Your task to perform on an android device: create a new album in the google photos Image 0: 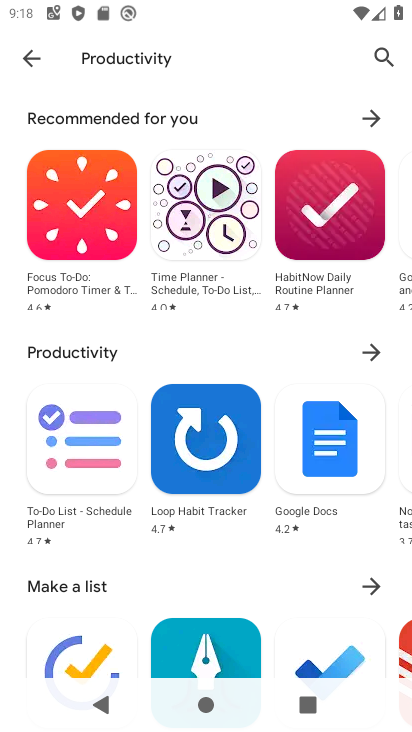
Step 0: press home button
Your task to perform on an android device: create a new album in the google photos Image 1: 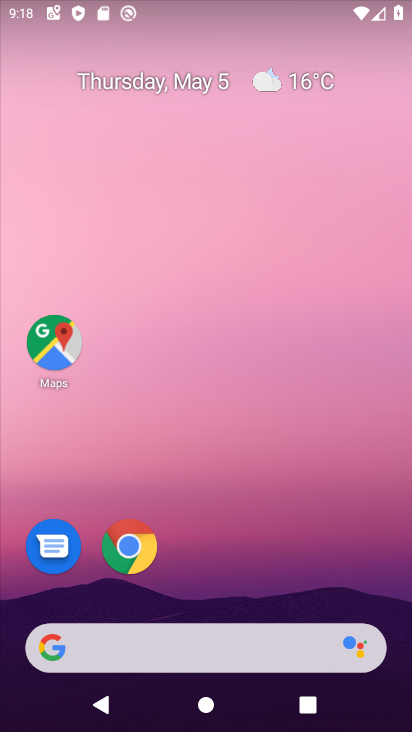
Step 1: drag from (156, 656) to (328, 36)
Your task to perform on an android device: create a new album in the google photos Image 2: 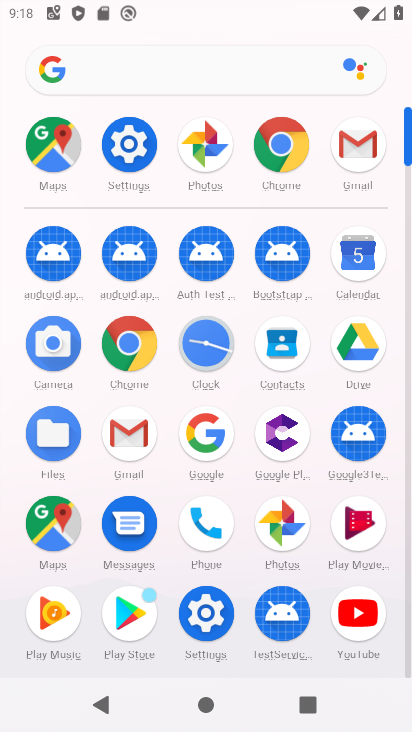
Step 2: click (277, 531)
Your task to perform on an android device: create a new album in the google photos Image 3: 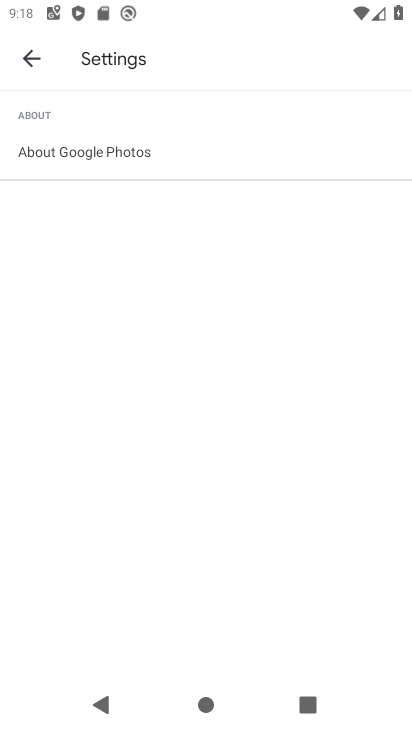
Step 3: click (35, 60)
Your task to perform on an android device: create a new album in the google photos Image 4: 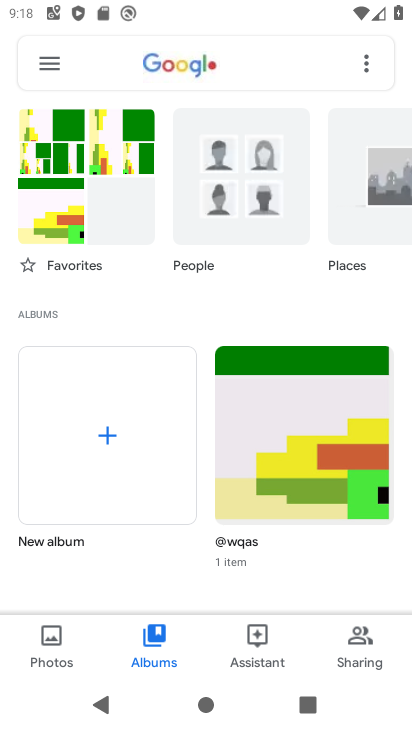
Step 4: click (105, 436)
Your task to perform on an android device: create a new album in the google photos Image 5: 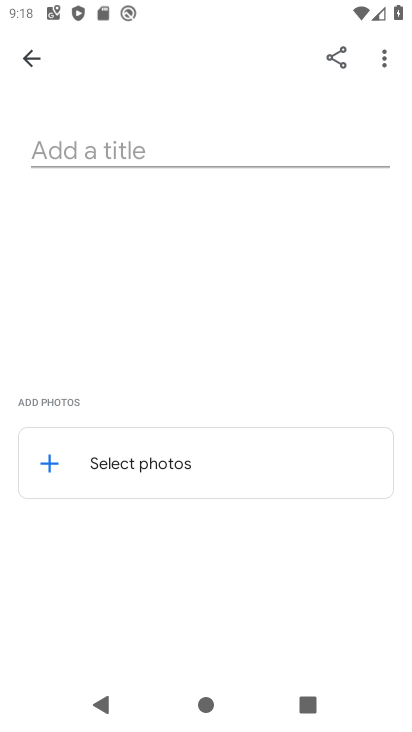
Step 5: click (168, 464)
Your task to perform on an android device: create a new album in the google photos Image 6: 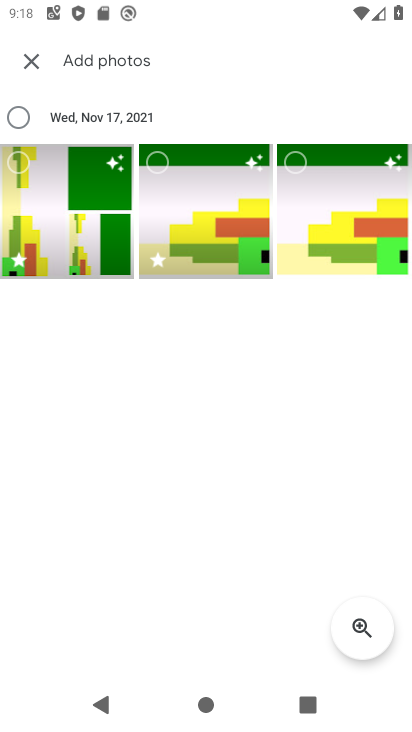
Step 6: click (15, 158)
Your task to perform on an android device: create a new album in the google photos Image 7: 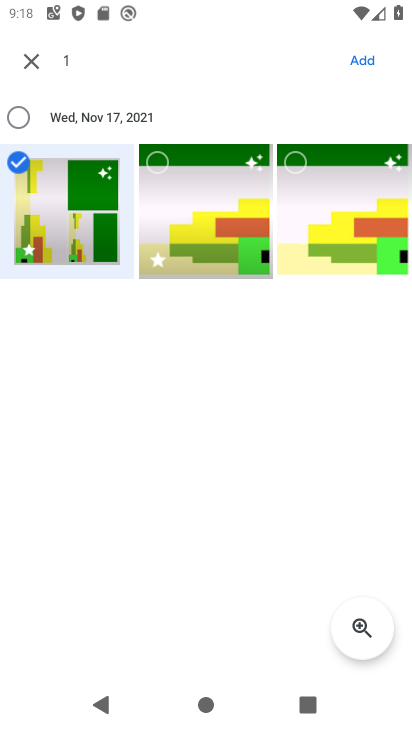
Step 7: click (158, 158)
Your task to perform on an android device: create a new album in the google photos Image 8: 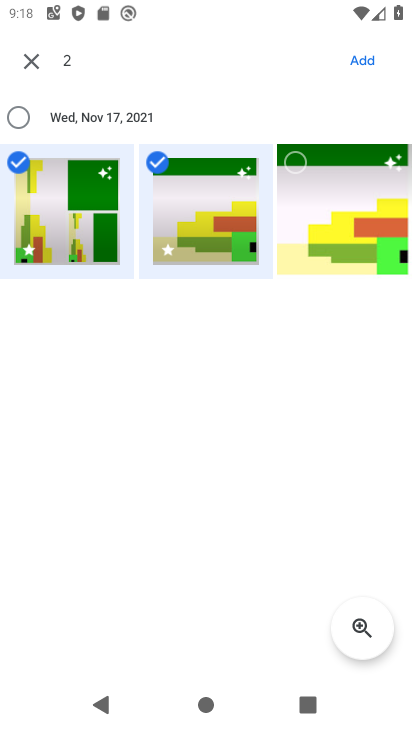
Step 8: click (300, 165)
Your task to perform on an android device: create a new album in the google photos Image 9: 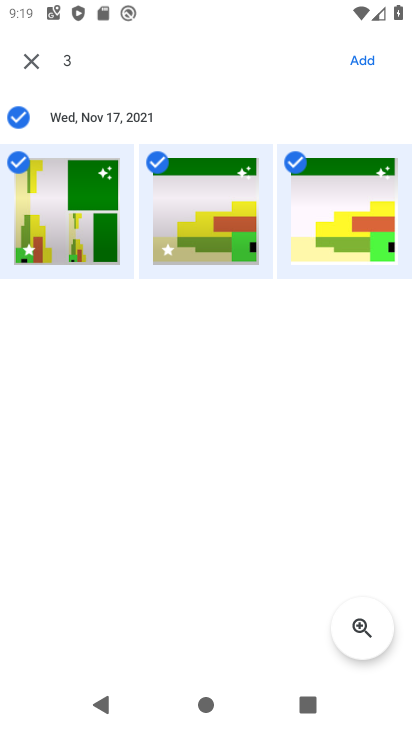
Step 9: click (368, 62)
Your task to perform on an android device: create a new album in the google photos Image 10: 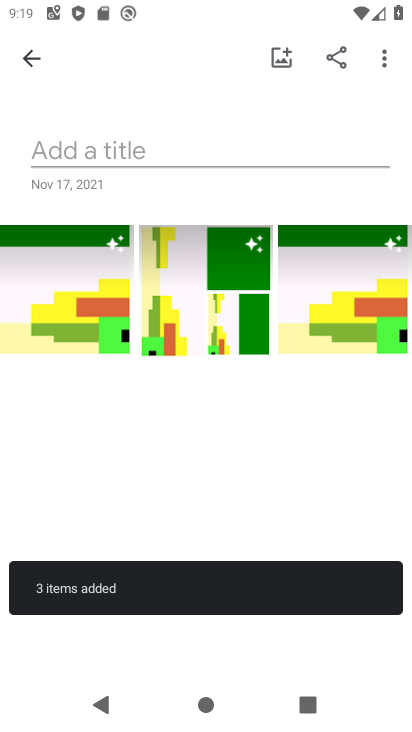
Step 10: task complete